Your task to perform on an android device: open sync settings in chrome Image 0: 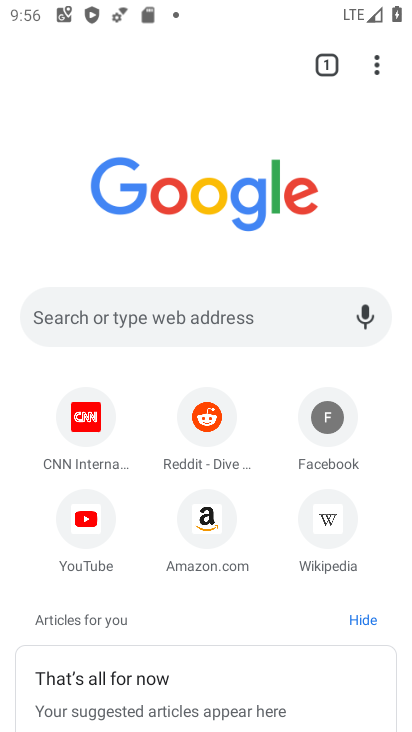
Step 0: click (385, 68)
Your task to perform on an android device: open sync settings in chrome Image 1: 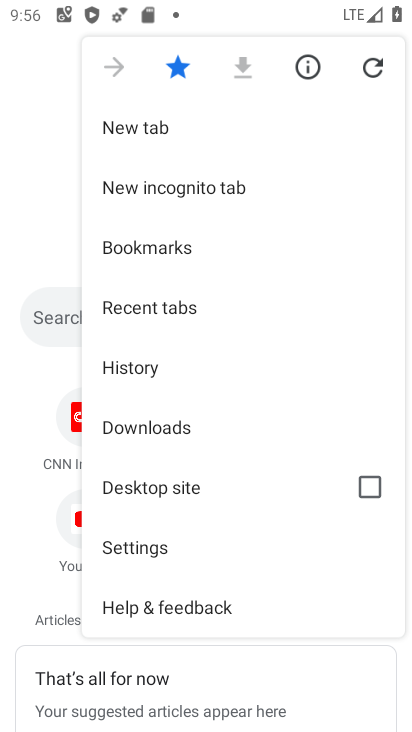
Step 1: click (176, 537)
Your task to perform on an android device: open sync settings in chrome Image 2: 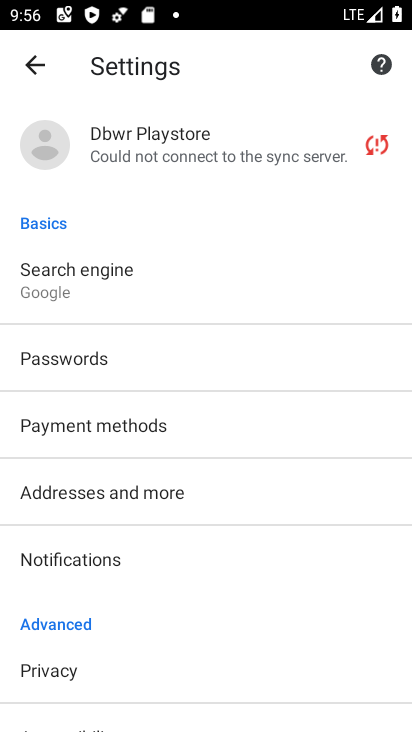
Step 2: click (122, 149)
Your task to perform on an android device: open sync settings in chrome Image 3: 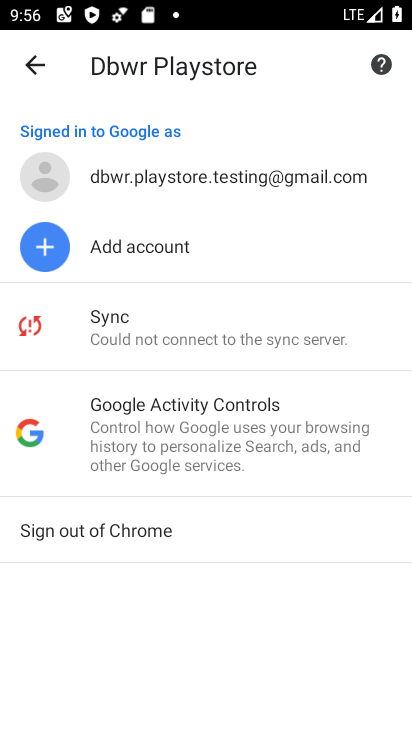
Step 3: click (149, 343)
Your task to perform on an android device: open sync settings in chrome Image 4: 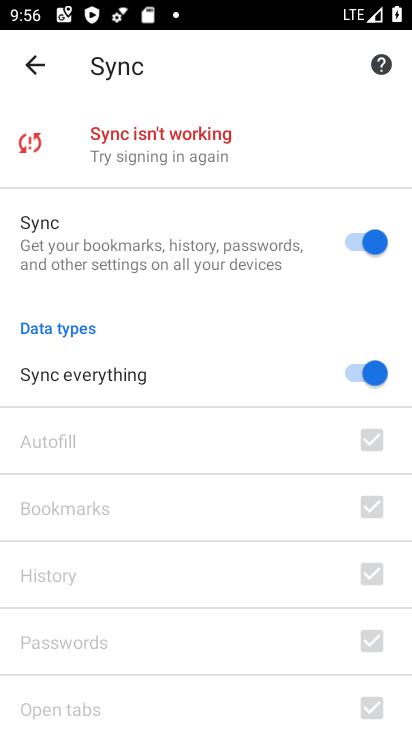
Step 4: task complete